Your task to perform on an android device: Open network settings Image 0: 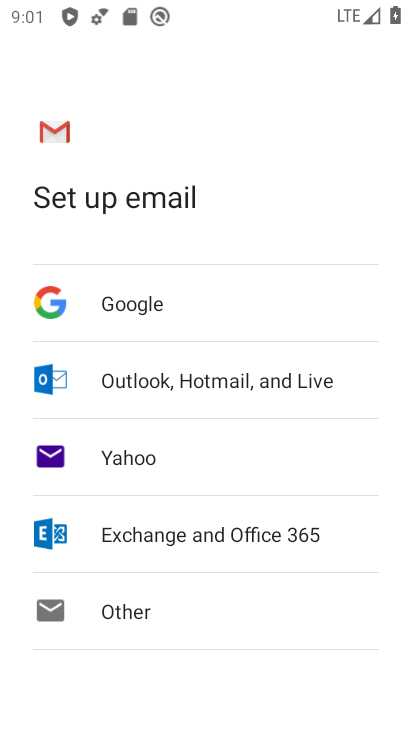
Step 0: press home button
Your task to perform on an android device: Open network settings Image 1: 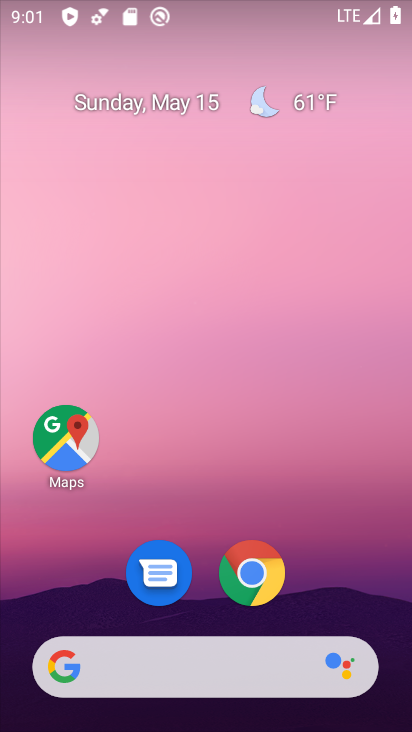
Step 1: drag from (37, 581) to (211, 193)
Your task to perform on an android device: Open network settings Image 2: 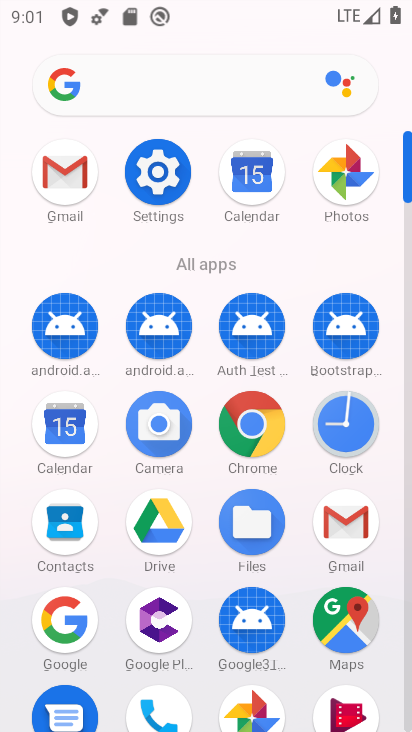
Step 2: click (157, 165)
Your task to perform on an android device: Open network settings Image 3: 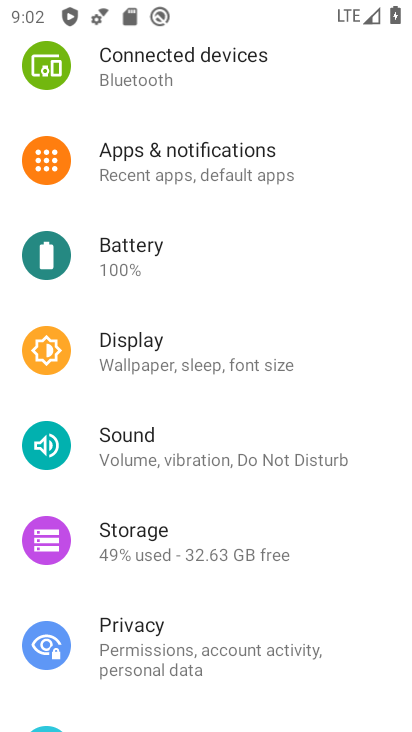
Step 3: drag from (205, 151) to (202, 584)
Your task to perform on an android device: Open network settings Image 4: 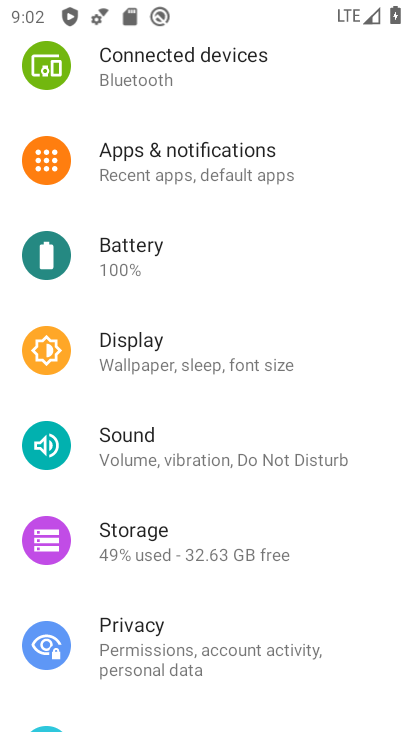
Step 4: drag from (166, 131) to (187, 590)
Your task to perform on an android device: Open network settings Image 5: 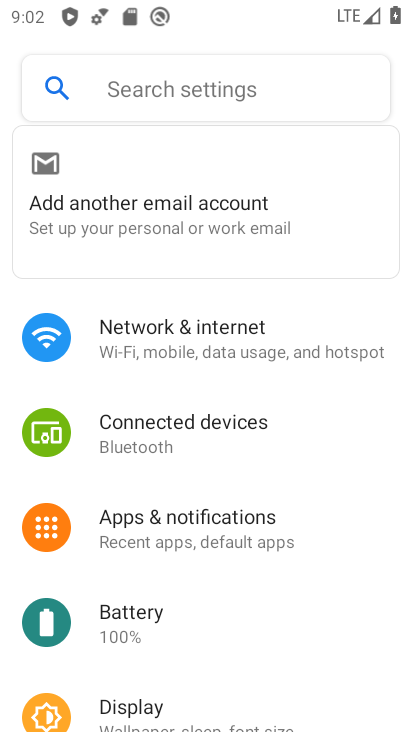
Step 5: click (219, 337)
Your task to perform on an android device: Open network settings Image 6: 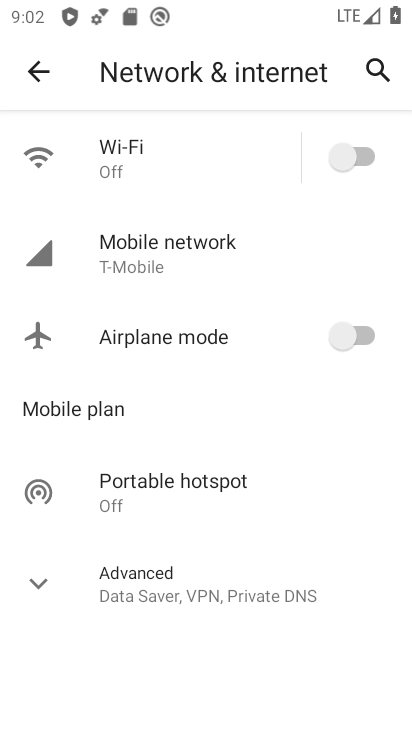
Step 6: task complete